Your task to perform on an android device: delete browsing data in the chrome app Image 0: 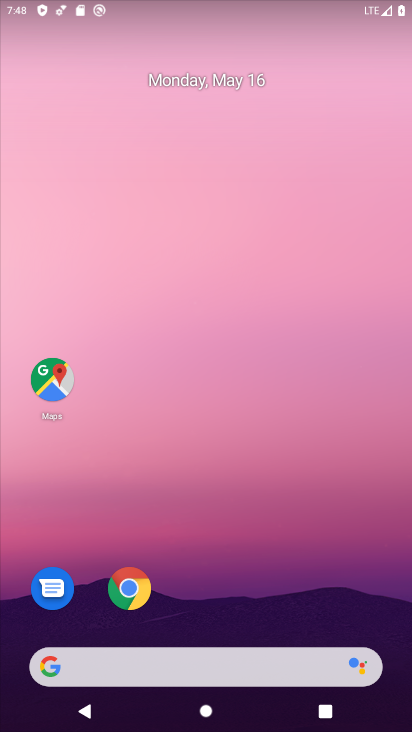
Step 0: click (130, 596)
Your task to perform on an android device: delete browsing data in the chrome app Image 1: 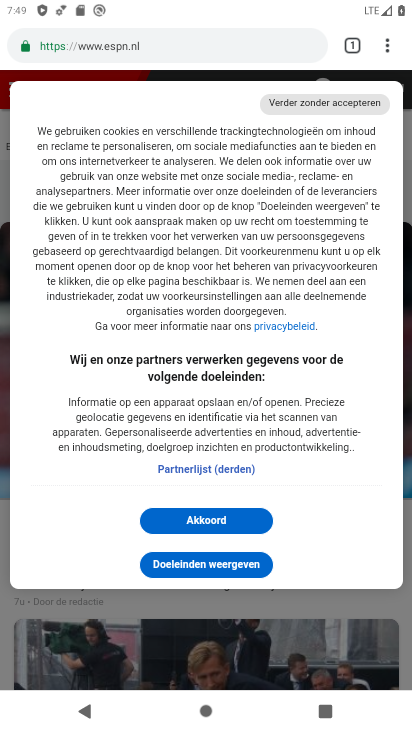
Step 1: drag from (387, 35) to (219, 246)
Your task to perform on an android device: delete browsing data in the chrome app Image 2: 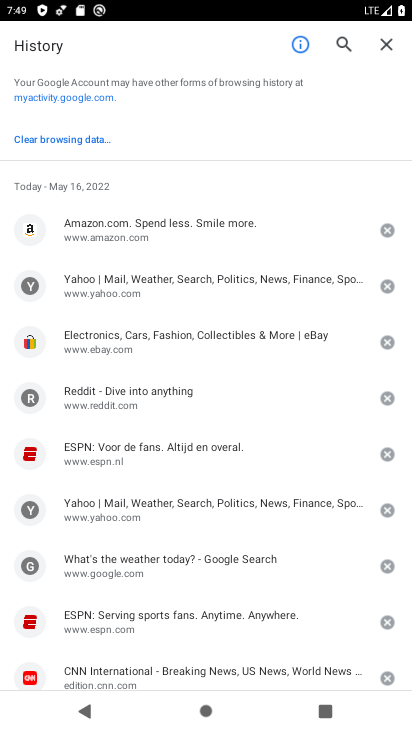
Step 2: click (74, 138)
Your task to perform on an android device: delete browsing data in the chrome app Image 3: 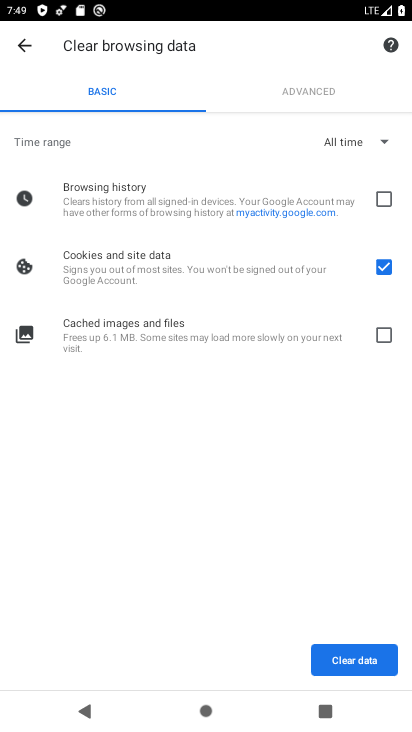
Step 3: click (380, 333)
Your task to perform on an android device: delete browsing data in the chrome app Image 4: 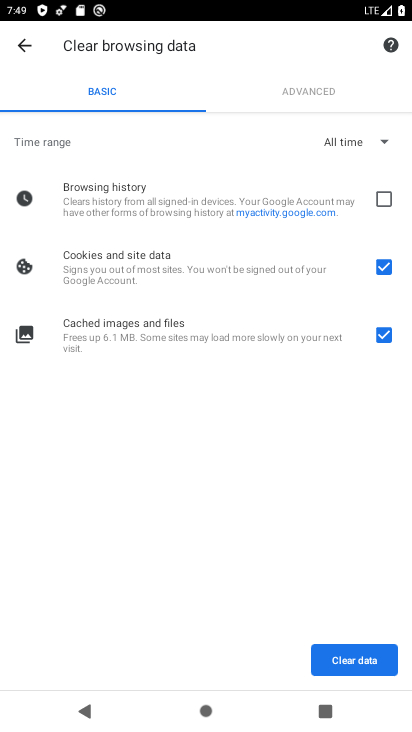
Step 4: click (391, 200)
Your task to perform on an android device: delete browsing data in the chrome app Image 5: 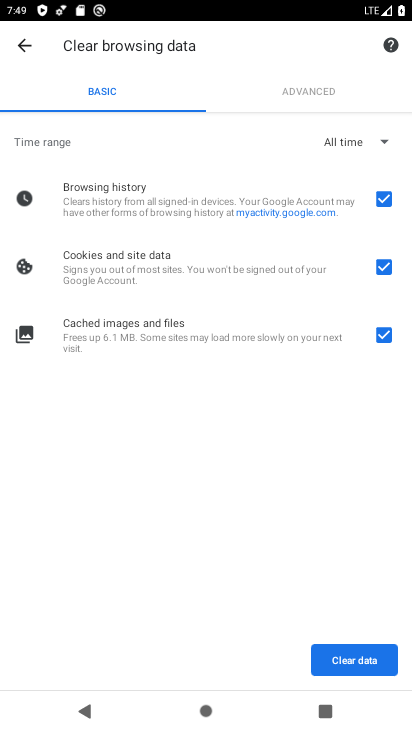
Step 5: click (354, 655)
Your task to perform on an android device: delete browsing data in the chrome app Image 6: 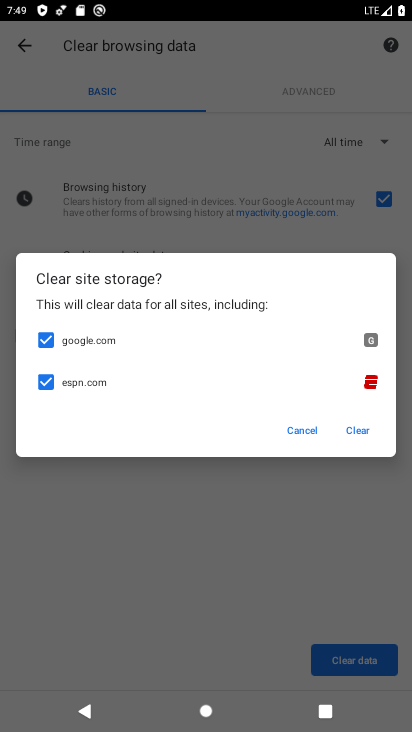
Step 6: click (357, 430)
Your task to perform on an android device: delete browsing data in the chrome app Image 7: 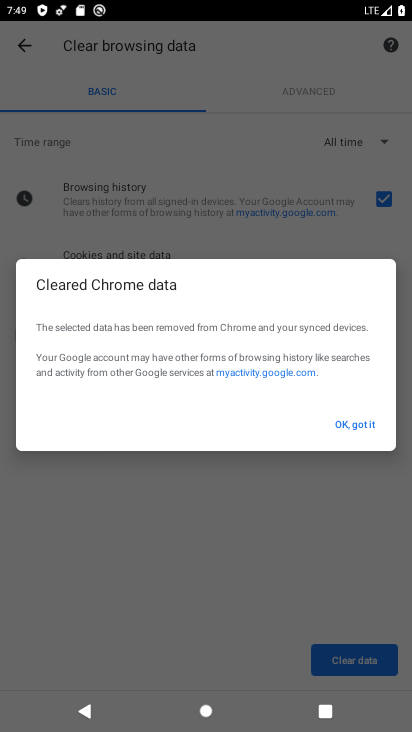
Step 7: task complete